Your task to perform on an android device: What's the weather going to be this weekend? Image 0: 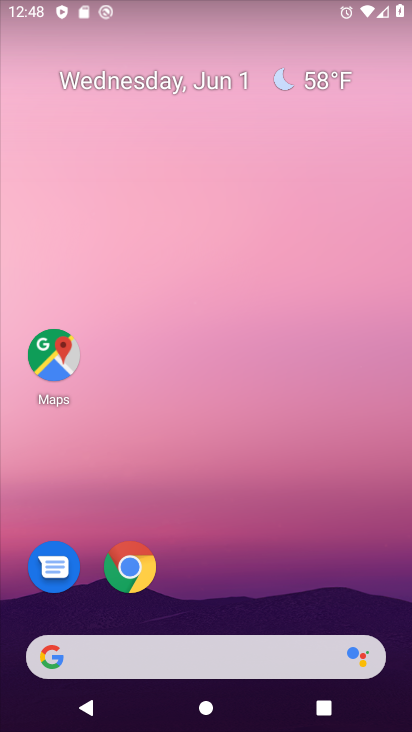
Step 0: drag from (215, 591) to (260, 108)
Your task to perform on an android device: What's the weather going to be this weekend? Image 1: 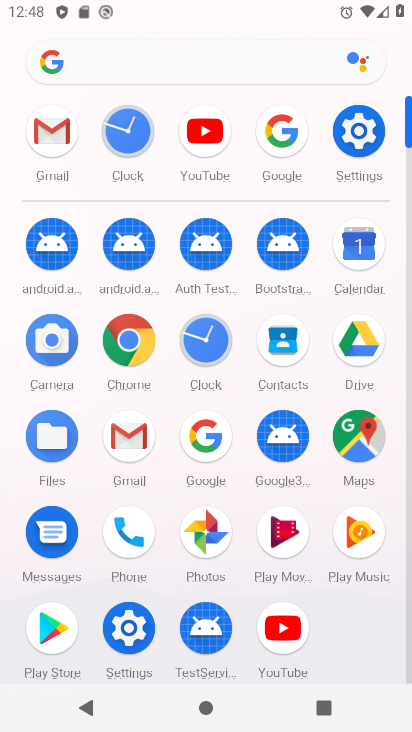
Step 1: click (192, 436)
Your task to perform on an android device: What's the weather going to be this weekend? Image 2: 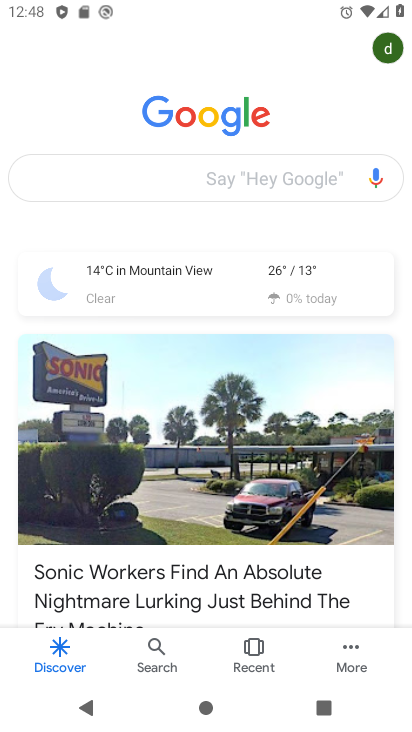
Step 2: click (210, 186)
Your task to perform on an android device: What's the weather going to be this weekend? Image 3: 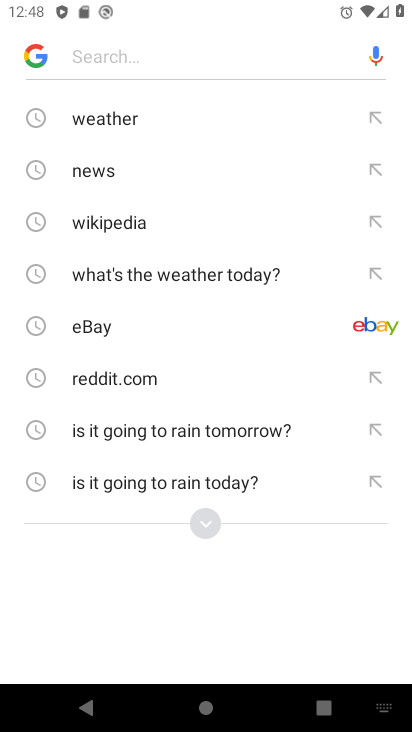
Step 3: click (200, 522)
Your task to perform on an android device: What's the weather going to be this weekend? Image 4: 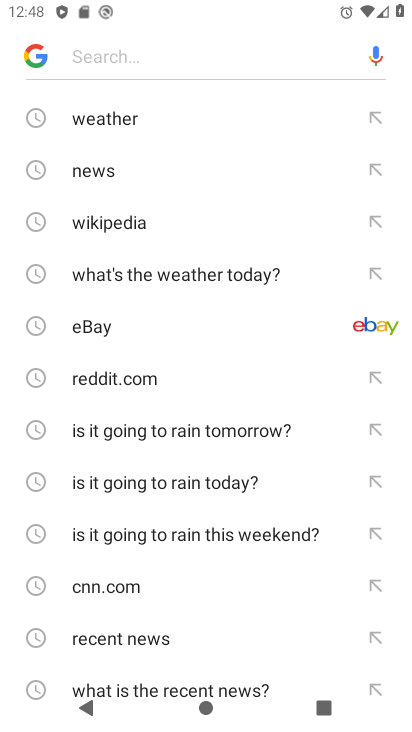
Step 4: drag from (203, 558) to (249, 155)
Your task to perform on an android device: What's the weather going to be this weekend? Image 5: 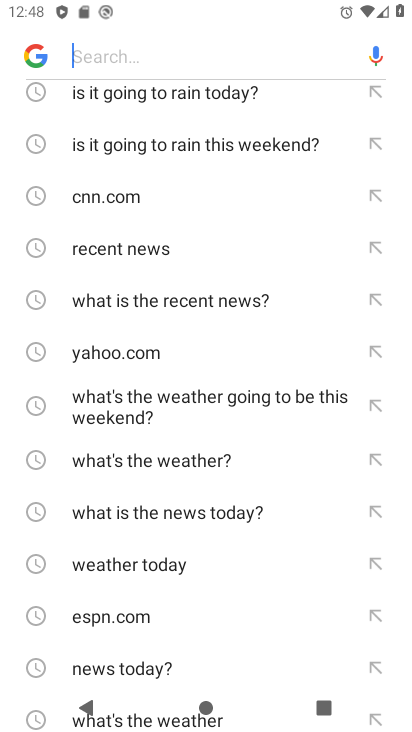
Step 5: click (121, 404)
Your task to perform on an android device: What's the weather going to be this weekend? Image 6: 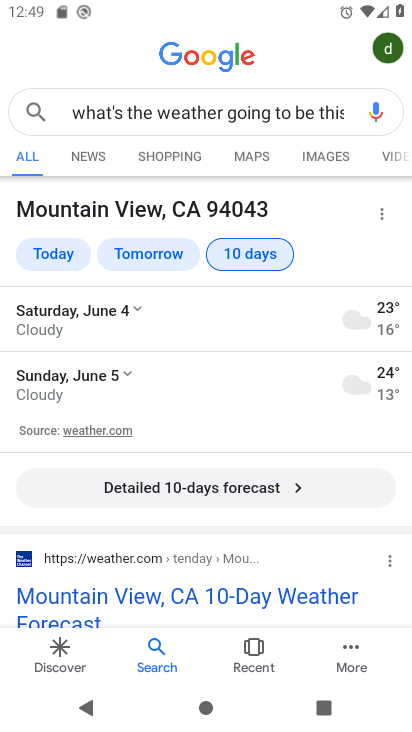
Step 6: task complete